Your task to perform on an android device: check storage Image 0: 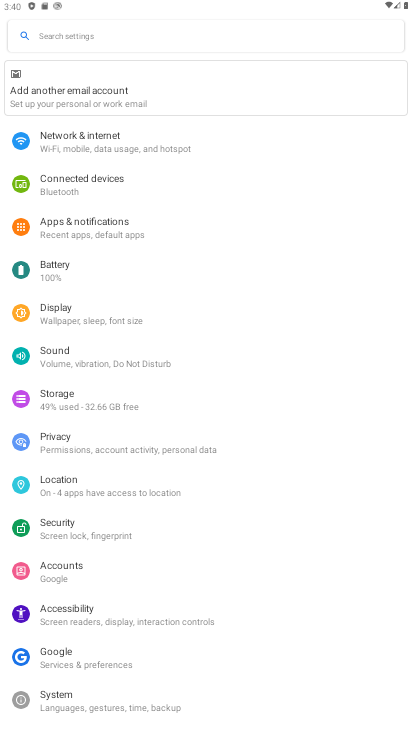
Step 0: click (72, 408)
Your task to perform on an android device: check storage Image 1: 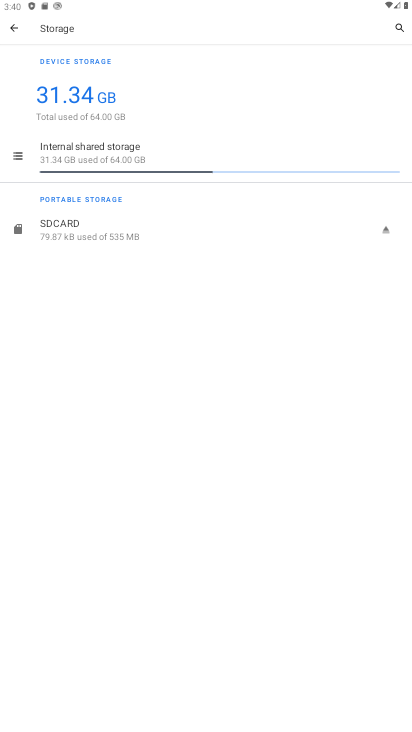
Step 1: click (98, 163)
Your task to perform on an android device: check storage Image 2: 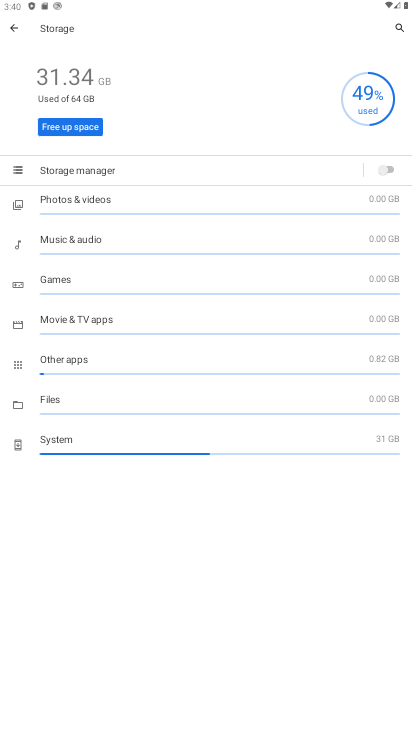
Step 2: task complete